Your task to perform on an android device: manage bookmarks in the chrome app Image 0: 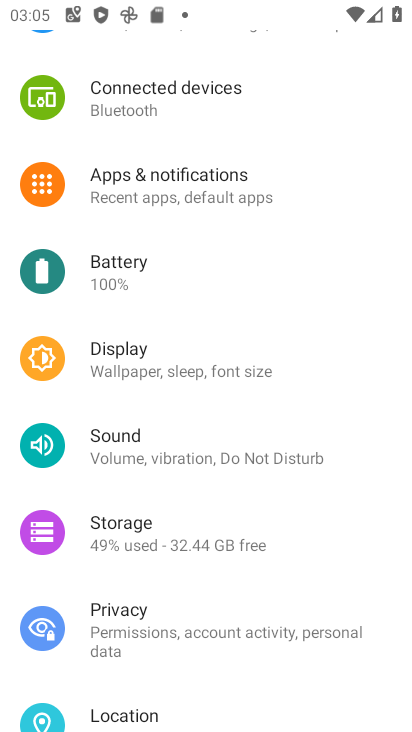
Step 0: press home button
Your task to perform on an android device: manage bookmarks in the chrome app Image 1: 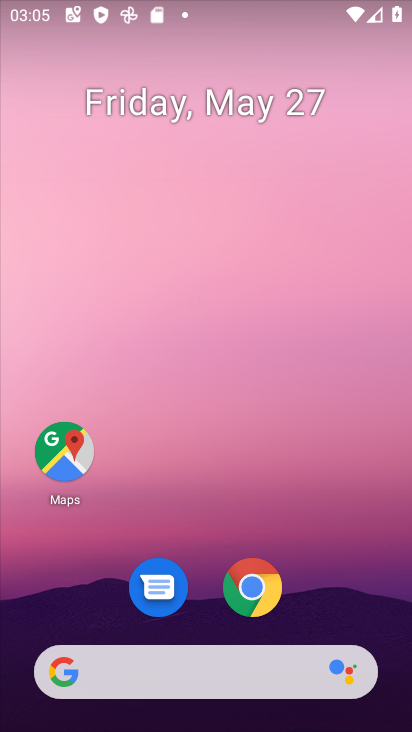
Step 1: click (255, 594)
Your task to perform on an android device: manage bookmarks in the chrome app Image 2: 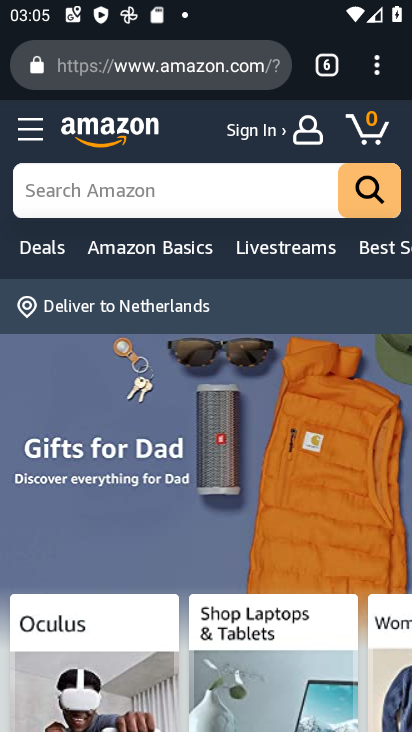
Step 2: click (375, 71)
Your task to perform on an android device: manage bookmarks in the chrome app Image 3: 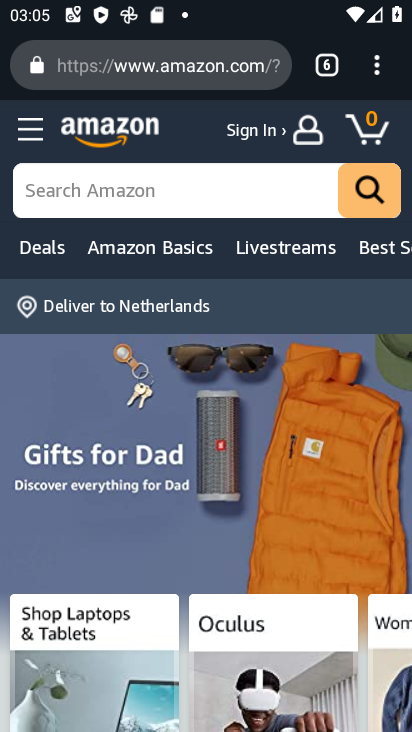
Step 3: drag from (375, 71) to (156, 252)
Your task to perform on an android device: manage bookmarks in the chrome app Image 4: 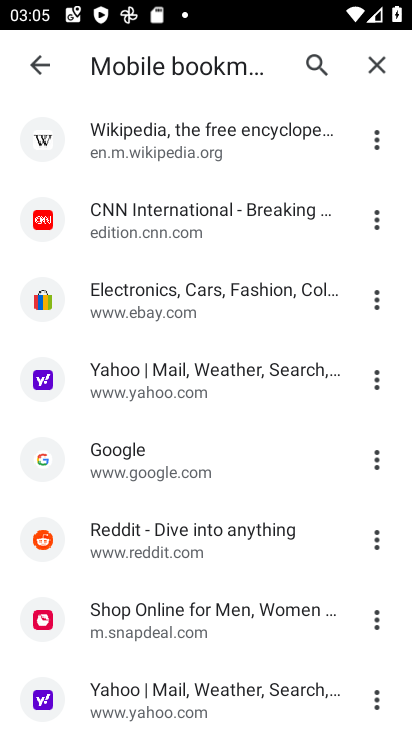
Step 4: click (375, 453)
Your task to perform on an android device: manage bookmarks in the chrome app Image 5: 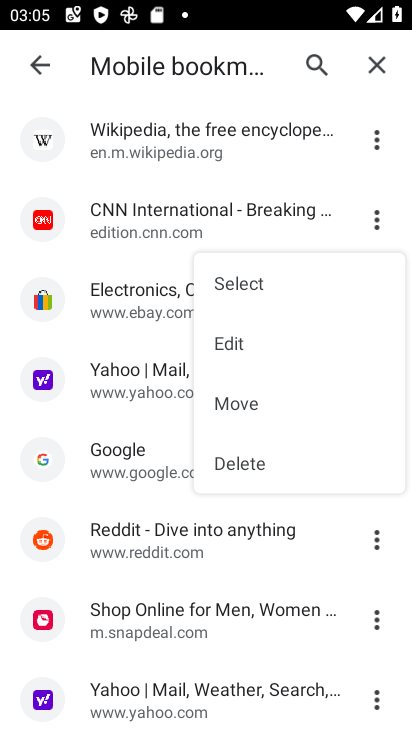
Step 5: click (260, 343)
Your task to perform on an android device: manage bookmarks in the chrome app Image 6: 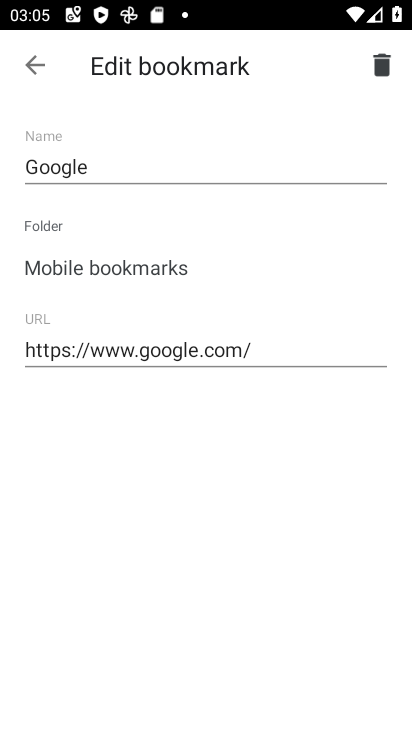
Step 6: click (316, 260)
Your task to perform on an android device: manage bookmarks in the chrome app Image 7: 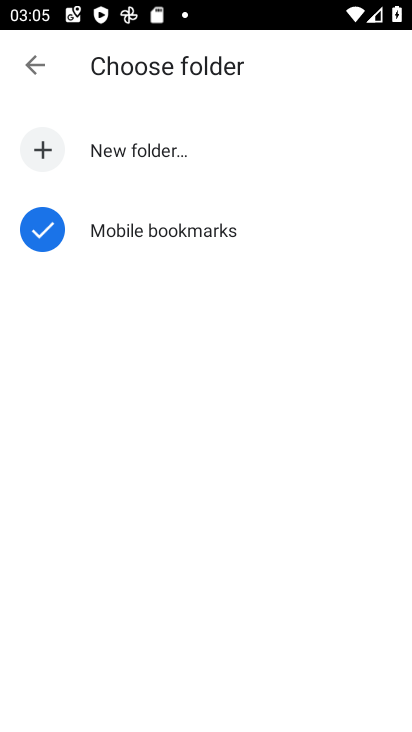
Step 7: click (53, 223)
Your task to perform on an android device: manage bookmarks in the chrome app Image 8: 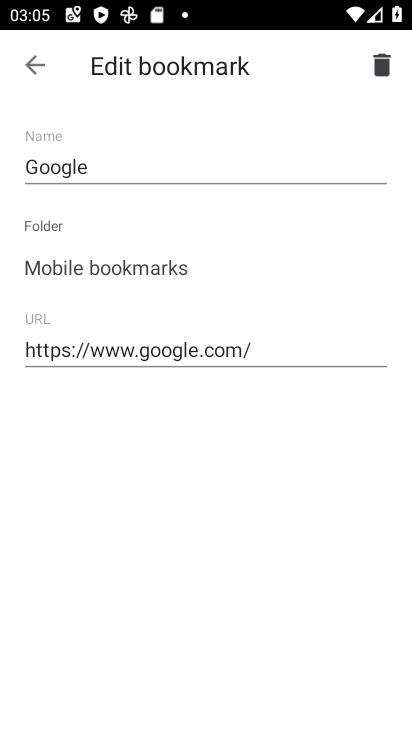
Step 8: drag from (298, 591) to (312, 93)
Your task to perform on an android device: manage bookmarks in the chrome app Image 9: 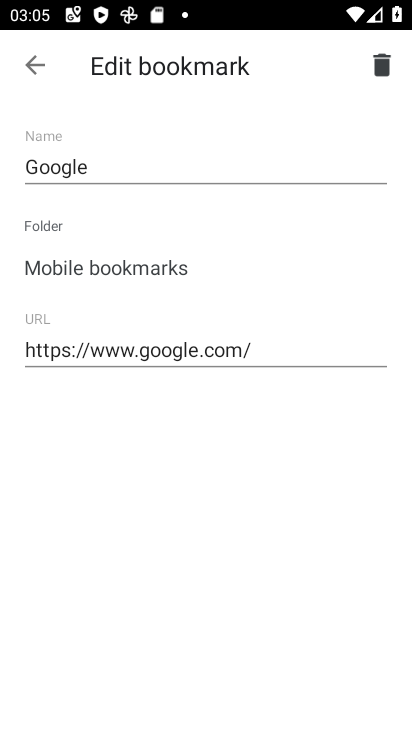
Step 9: click (27, 62)
Your task to perform on an android device: manage bookmarks in the chrome app Image 10: 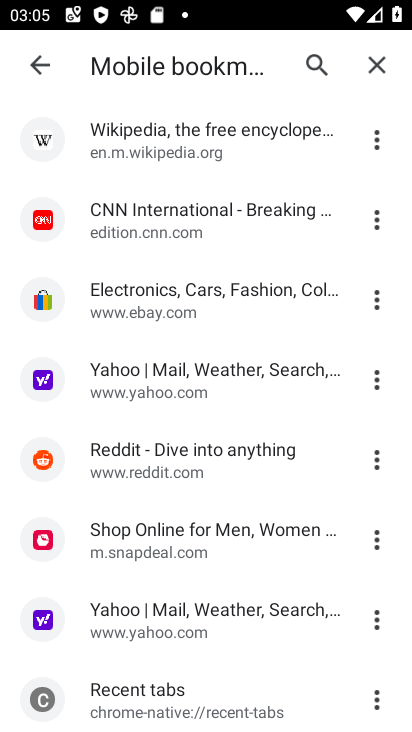
Step 10: task complete